Your task to perform on an android device: turn smart compose on in the gmail app Image 0: 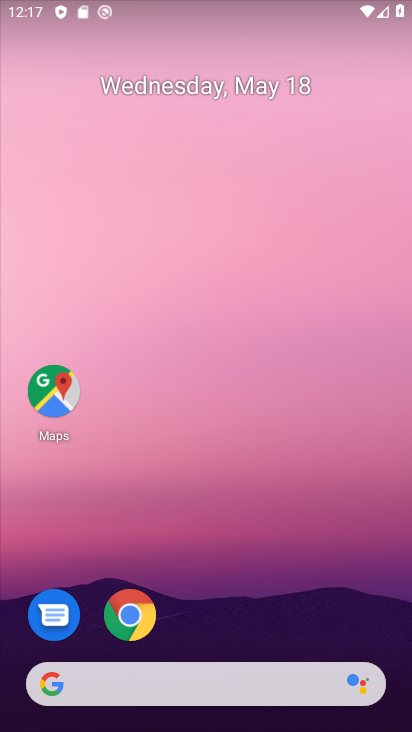
Step 0: press home button
Your task to perform on an android device: turn smart compose on in the gmail app Image 1: 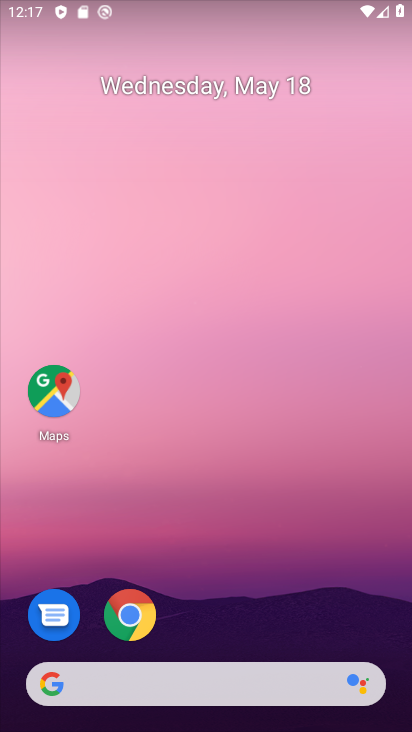
Step 1: drag from (212, 582) to (138, 141)
Your task to perform on an android device: turn smart compose on in the gmail app Image 2: 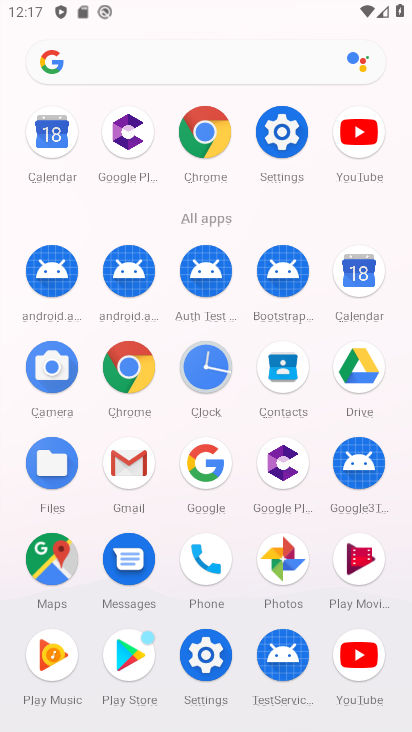
Step 2: click (126, 468)
Your task to perform on an android device: turn smart compose on in the gmail app Image 3: 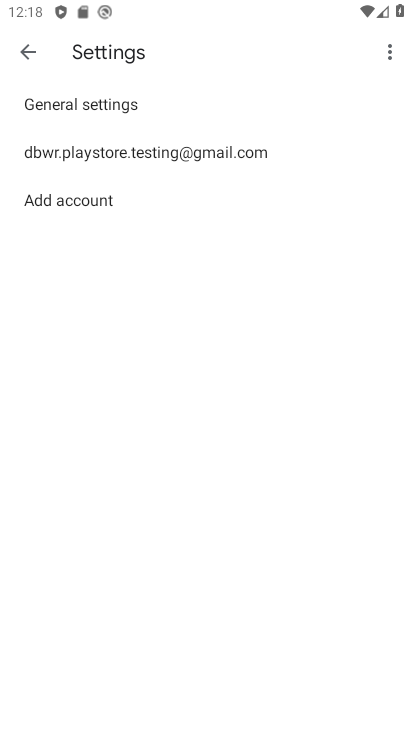
Step 3: click (185, 152)
Your task to perform on an android device: turn smart compose on in the gmail app Image 4: 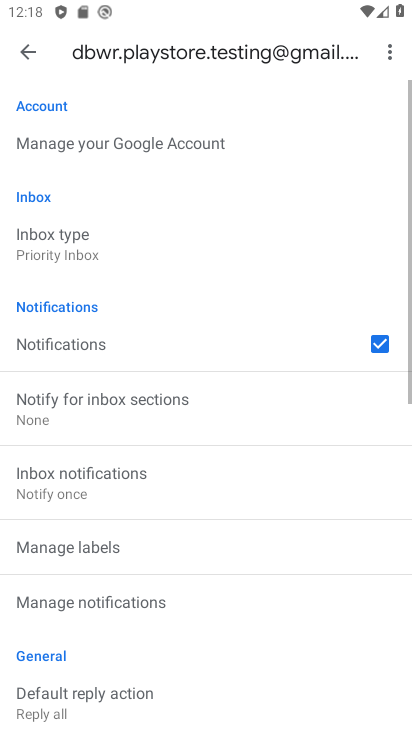
Step 4: task complete